Your task to perform on an android device: see sites visited before in the chrome app Image 0: 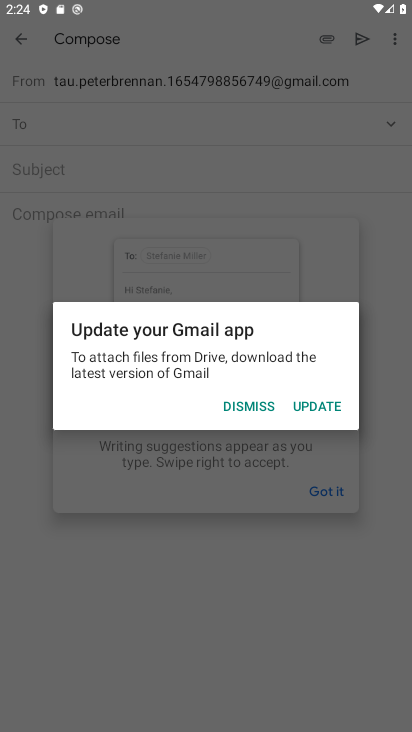
Step 0: press home button
Your task to perform on an android device: see sites visited before in the chrome app Image 1: 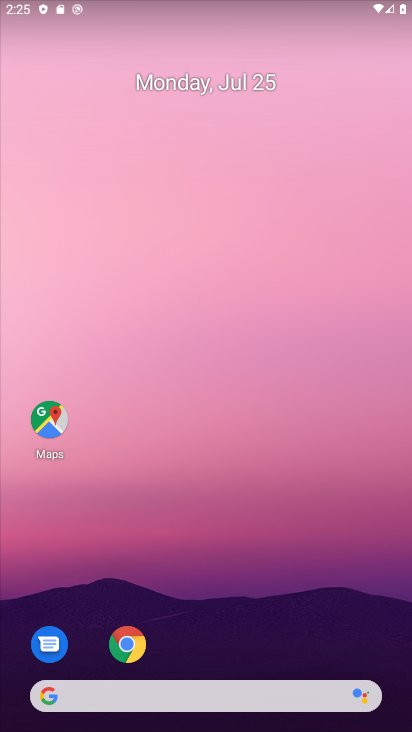
Step 1: click (151, 674)
Your task to perform on an android device: see sites visited before in the chrome app Image 2: 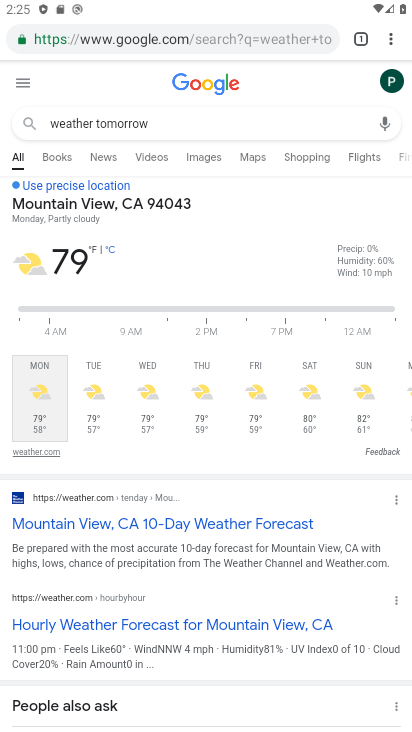
Step 2: task complete